Your task to perform on an android device: open app "Roku - Official Remote Control" Image 0: 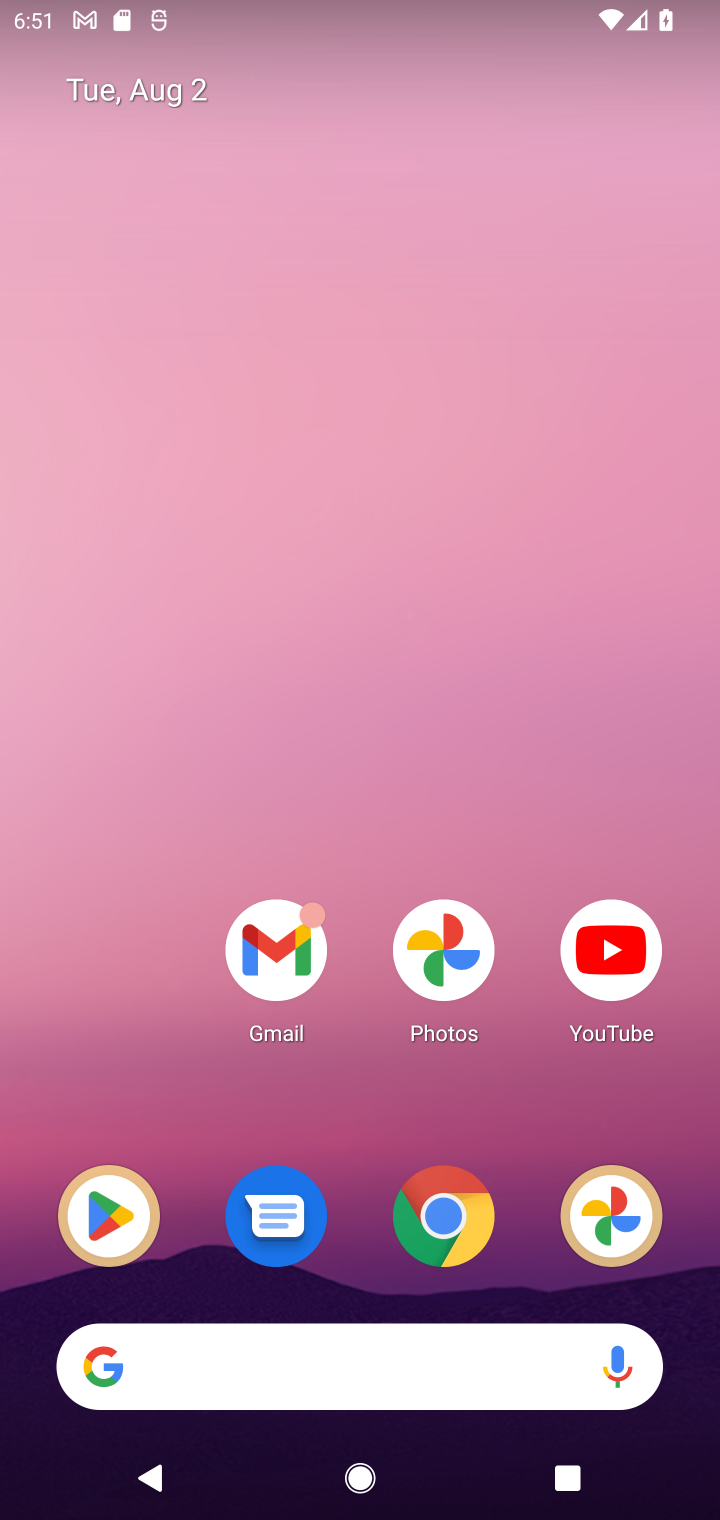
Step 0: press home button
Your task to perform on an android device: open app "Roku - Official Remote Control" Image 1: 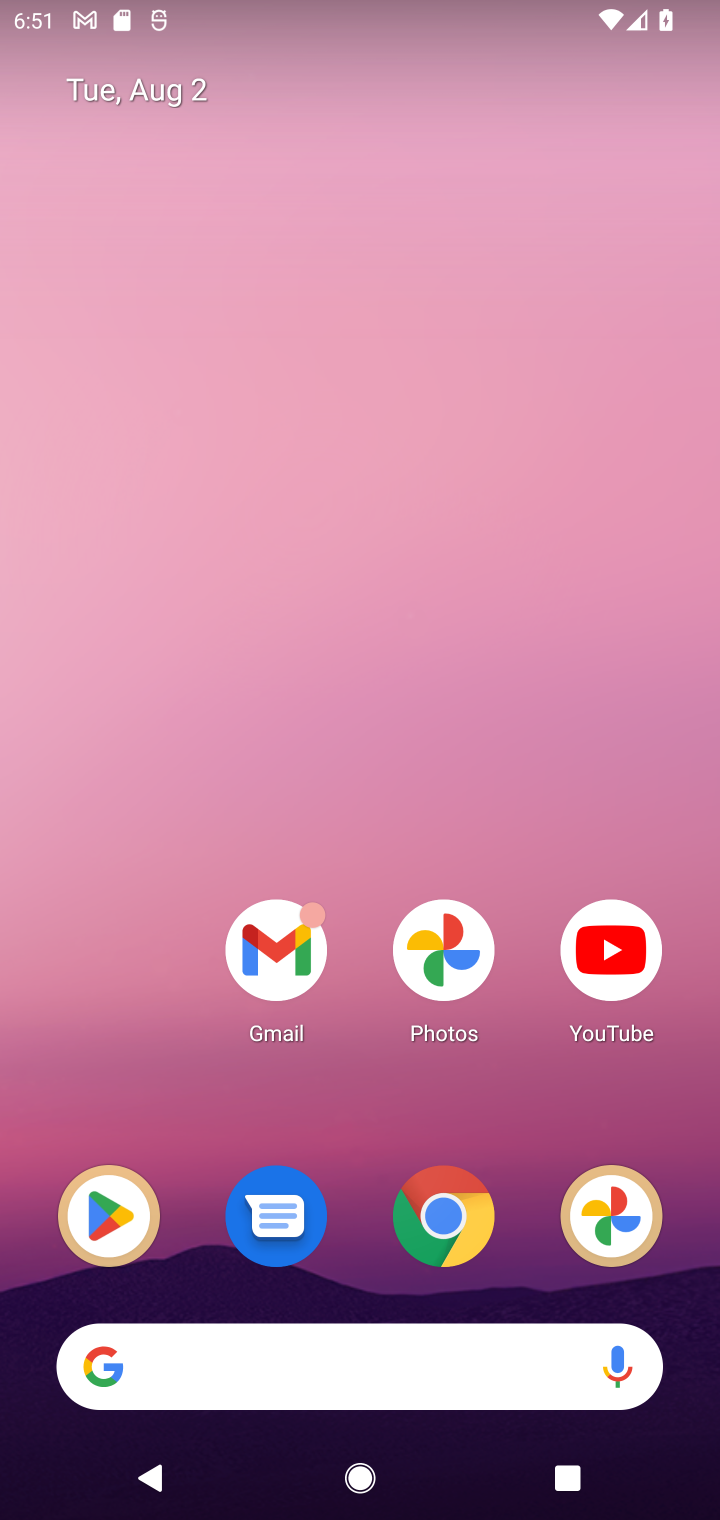
Step 1: click (121, 1214)
Your task to perform on an android device: open app "Roku - Official Remote Control" Image 2: 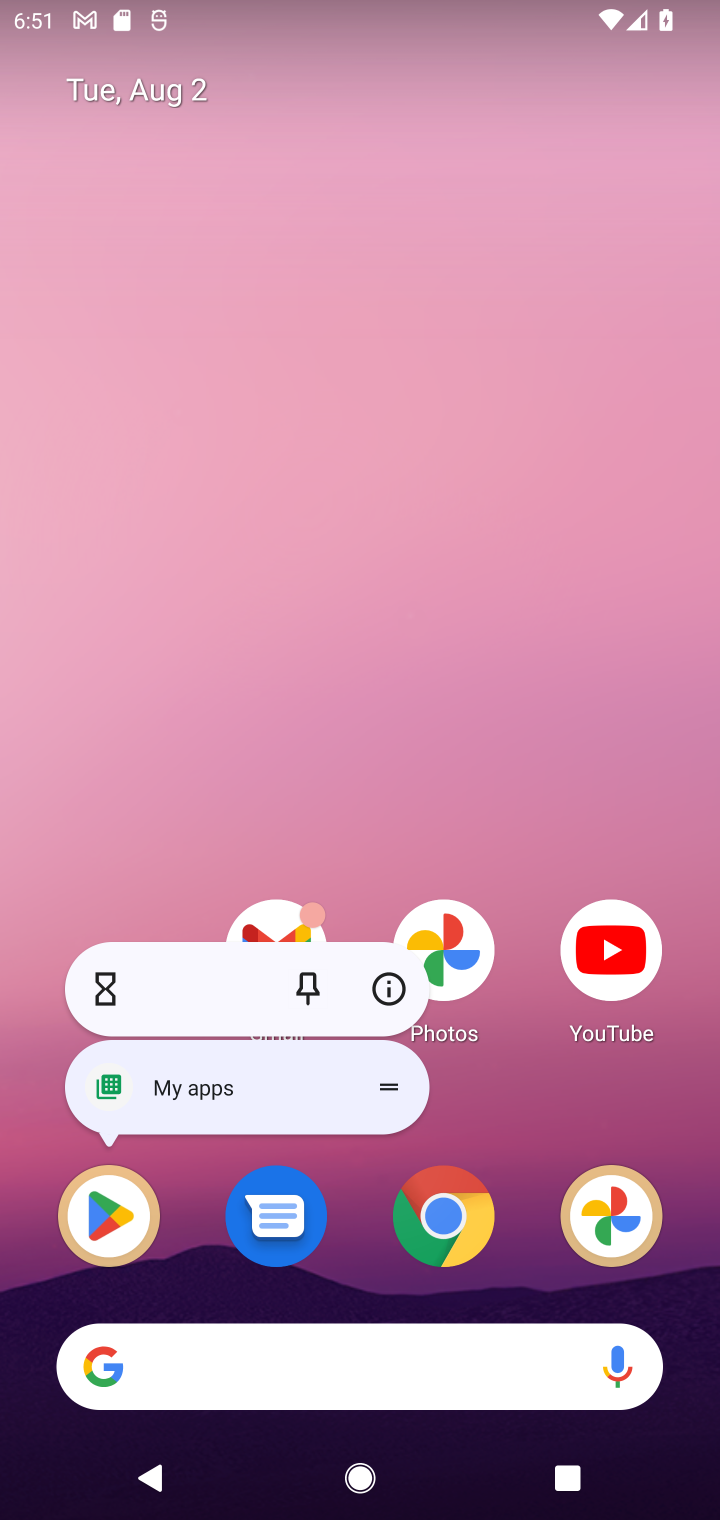
Step 2: click (121, 1218)
Your task to perform on an android device: open app "Roku - Official Remote Control" Image 3: 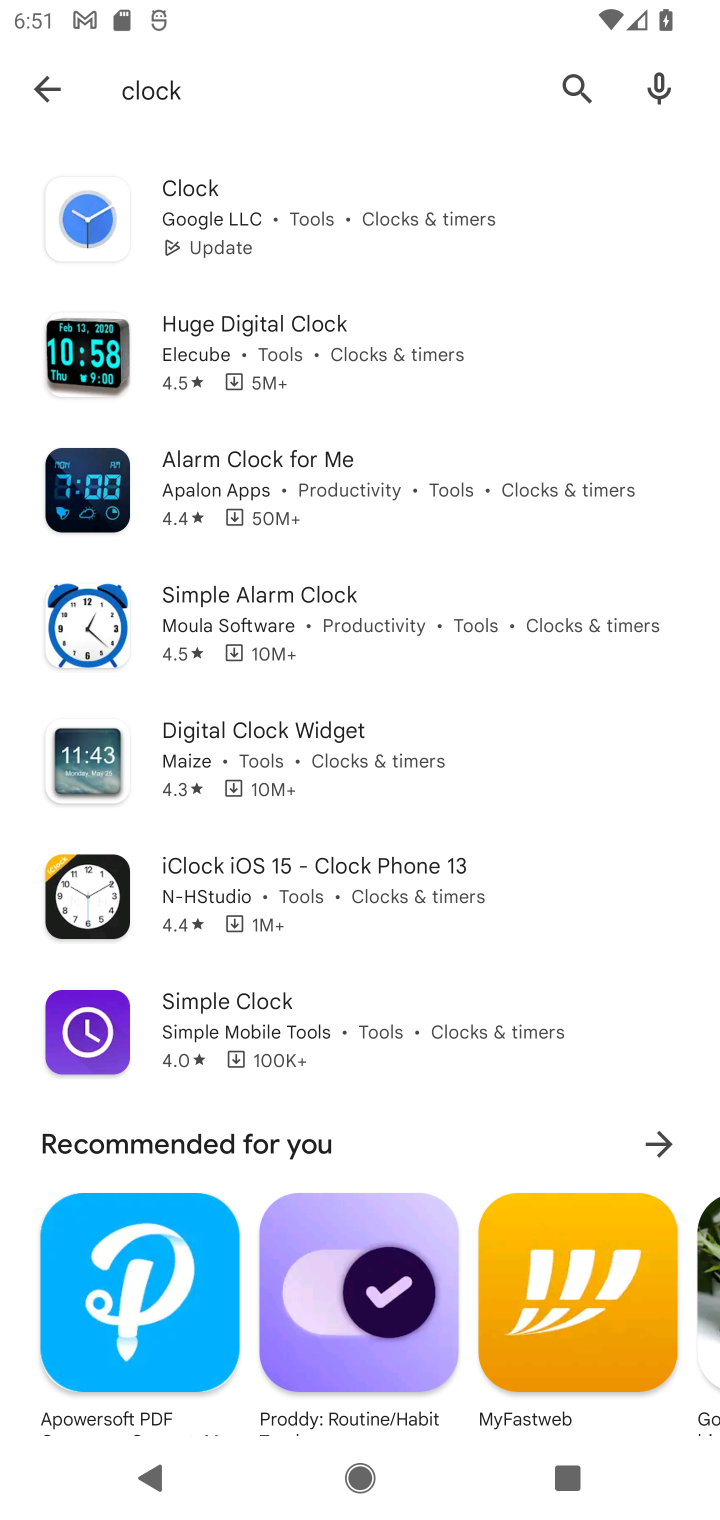
Step 3: click (555, 76)
Your task to perform on an android device: open app "Roku - Official Remote Control" Image 4: 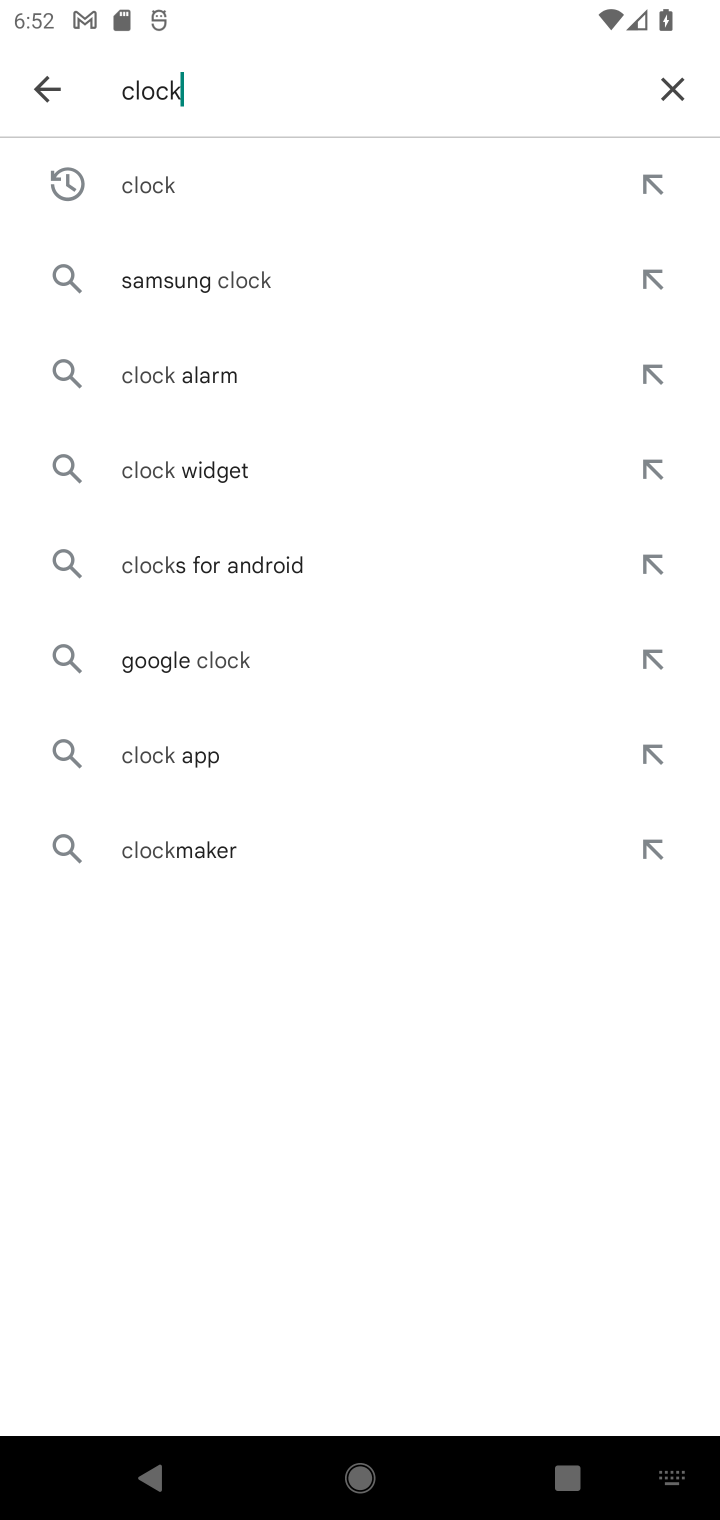
Step 4: click (674, 89)
Your task to perform on an android device: open app "Roku - Official Remote Control" Image 5: 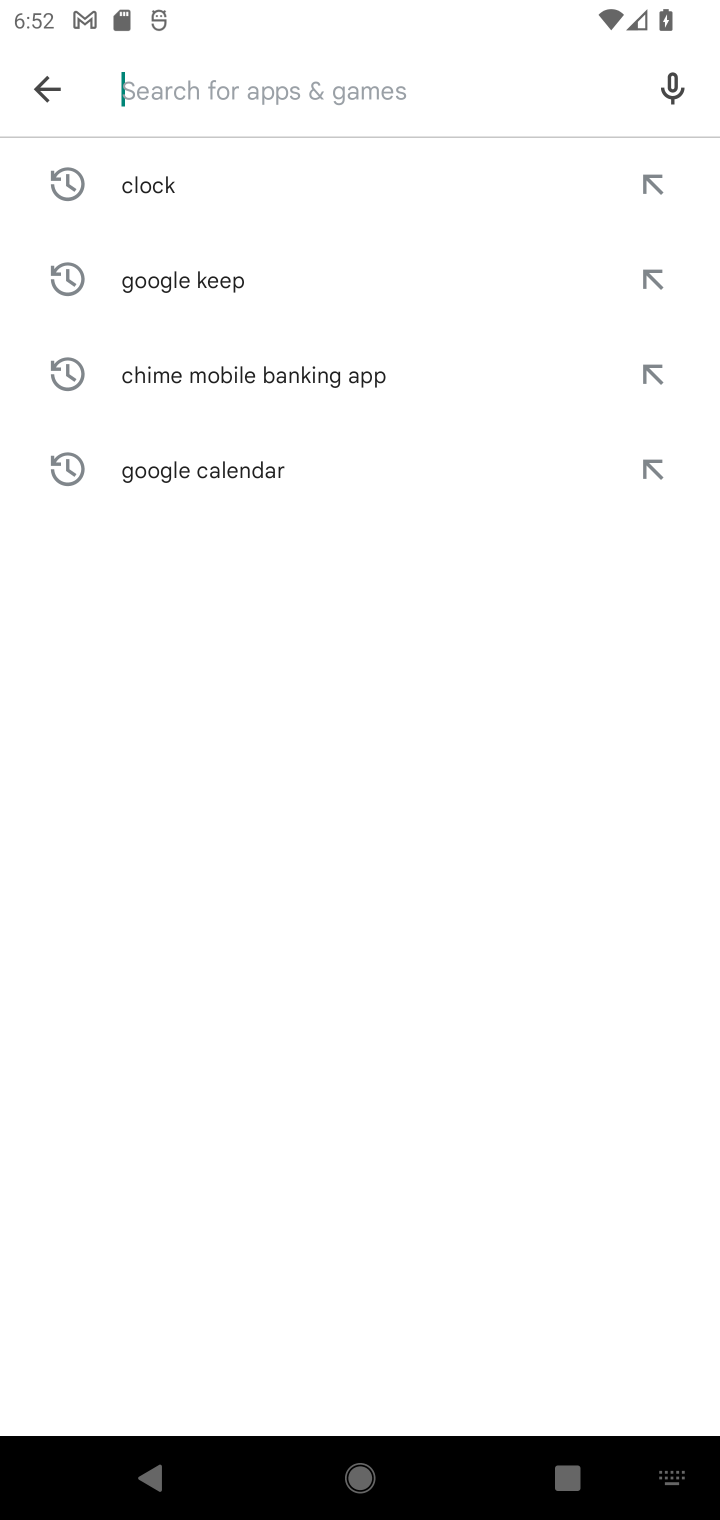
Step 5: type "Roku - Official Remote Control"
Your task to perform on an android device: open app "Roku - Official Remote Control" Image 6: 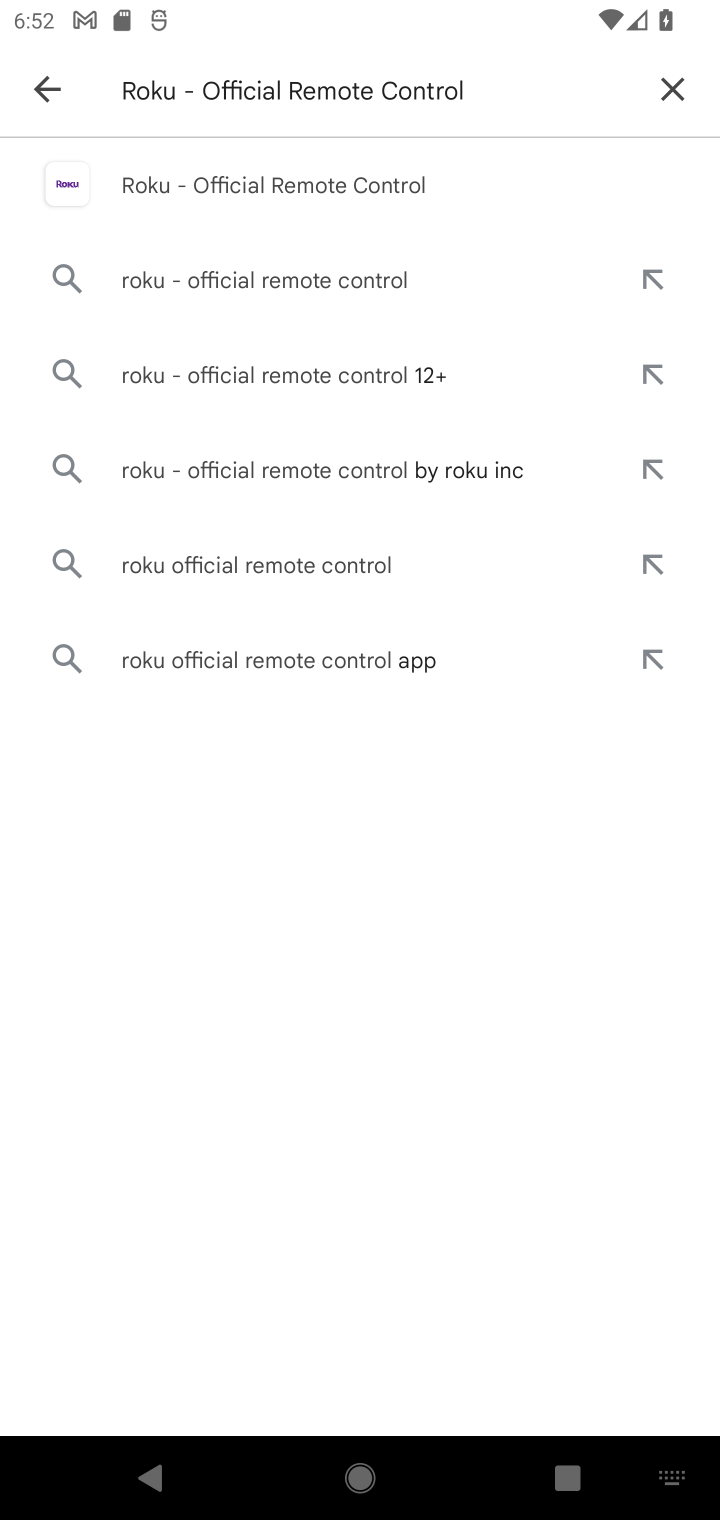
Step 6: click (372, 193)
Your task to perform on an android device: open app "Roku - Official Remote Control" Image 7: 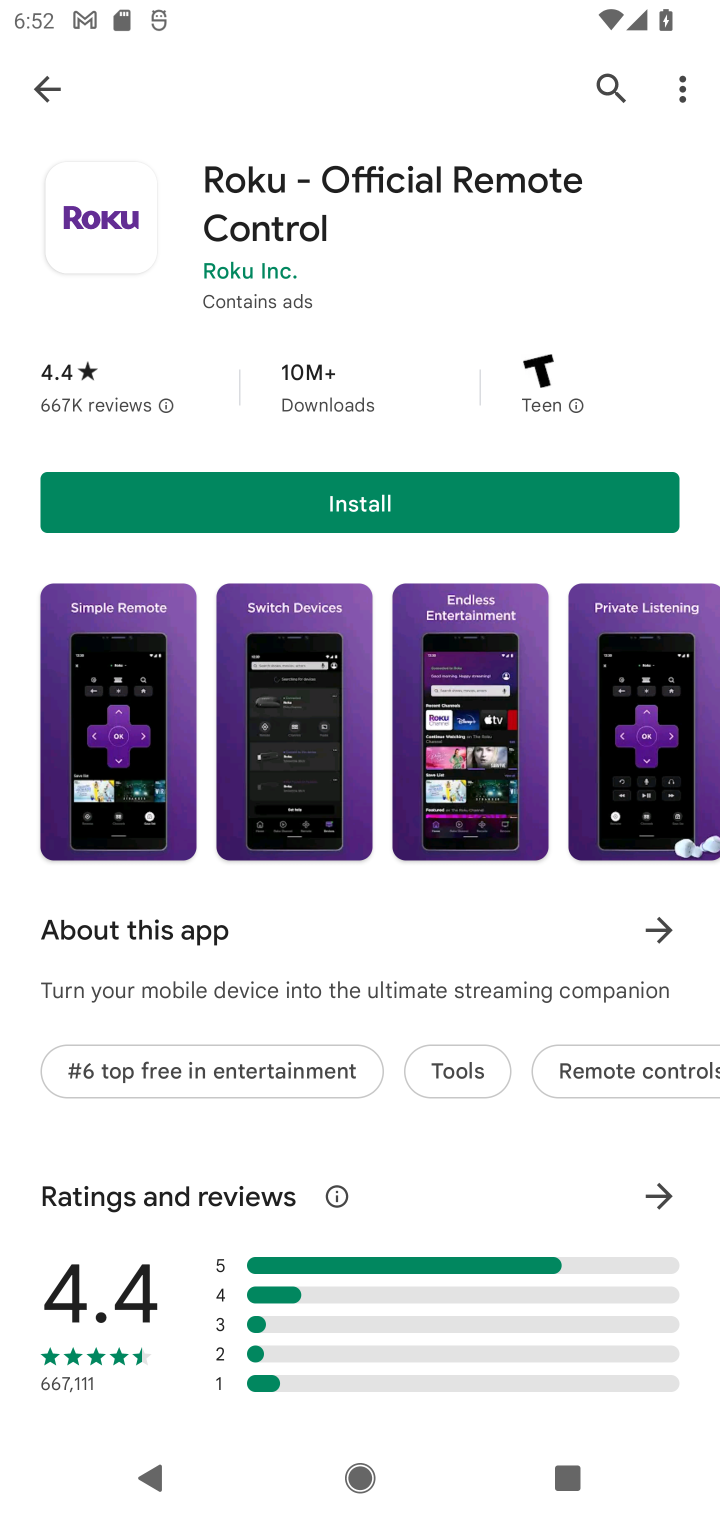
Step 7: task complete